Your task to perform on an android device: turn on bluetooth scan Image 0: 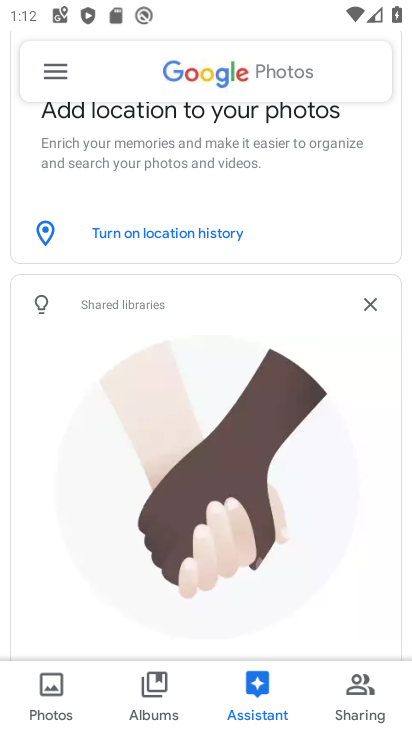
Step 0: press home button
Your task to perform on an android device: turn on bluetooth scan Image 1: 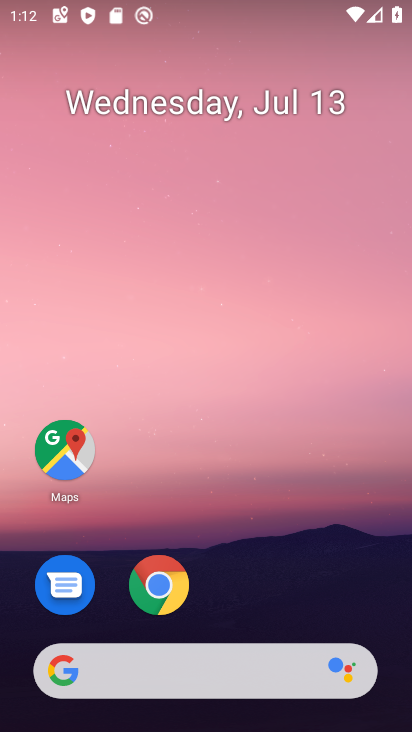
Step 1: drag from (149, 680) to (368, 60)
Your task to perform on an android device: turn on bluetooth scan Image 2: 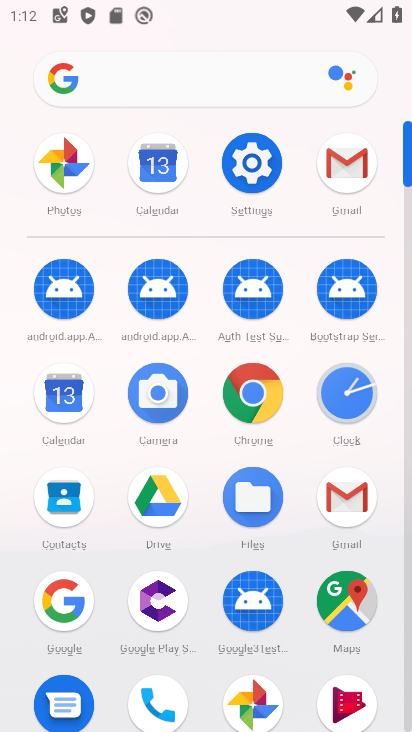
Step 2: click (260, 163)
Your task to perform on an android device: turn on bluetooth scan Image 3: 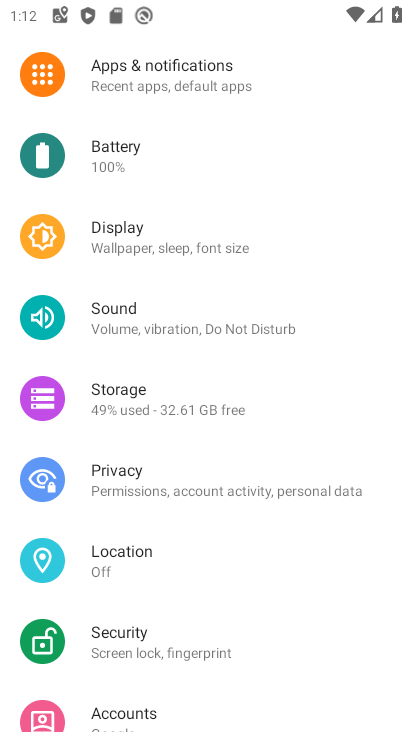
Step 3: click (117, 565)
Your task to perform on an android device: turn on bluetooth scan Image 4: 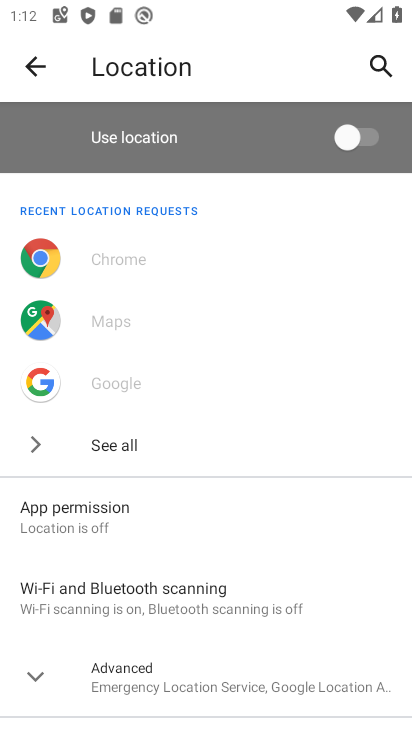
Step 4: click (159, 614)
Your task to perform on an android device: turn on bluetooth scan Image 5: 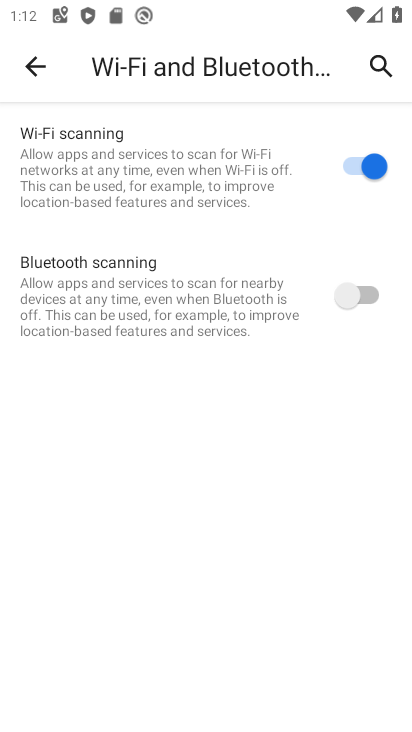
Step 5: click (375, 294)
Your task to perform on an android device: turn on bluetooth scan Image 6: 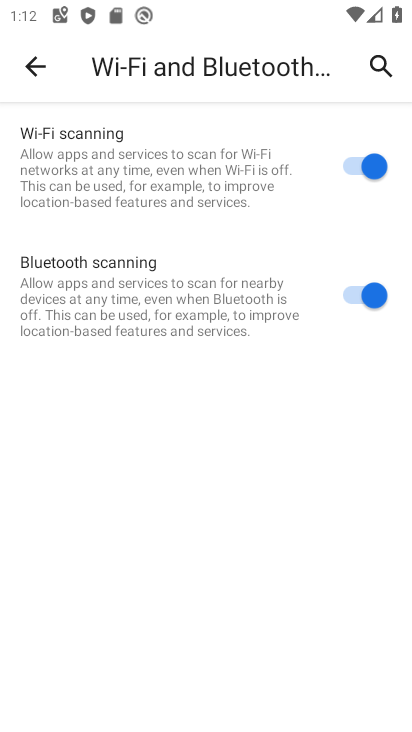
Step 6: task complete